Your task to perform on an android device: add a contact Image 0: 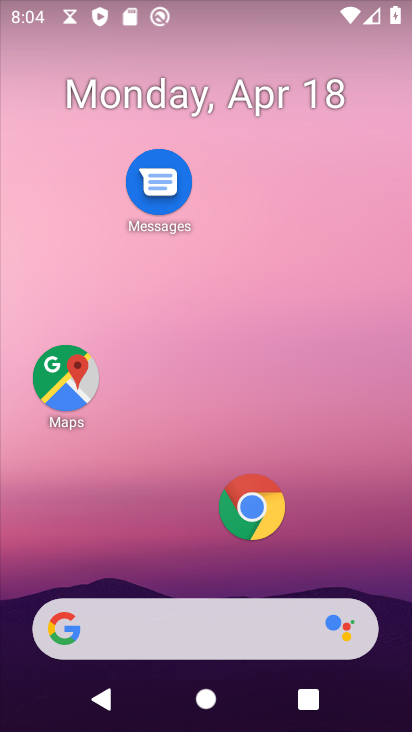
Step 0: drag from (155, 598) to (194, 287)
Your task to perform on an android device: add a contact Image 1: 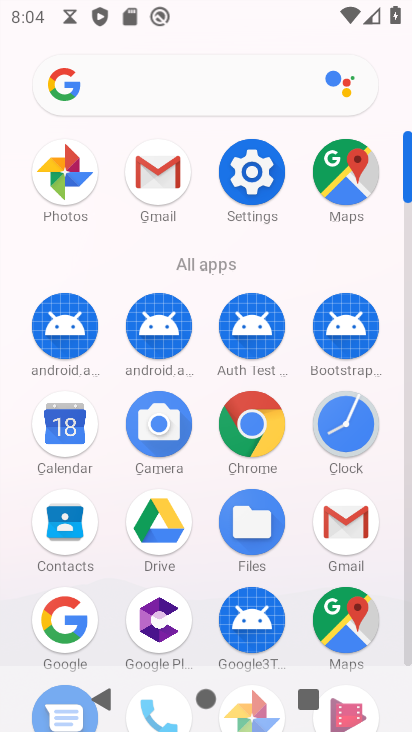
Step 1: click (67, 534)
Your task to perform on an android device: add a contact Image 2: 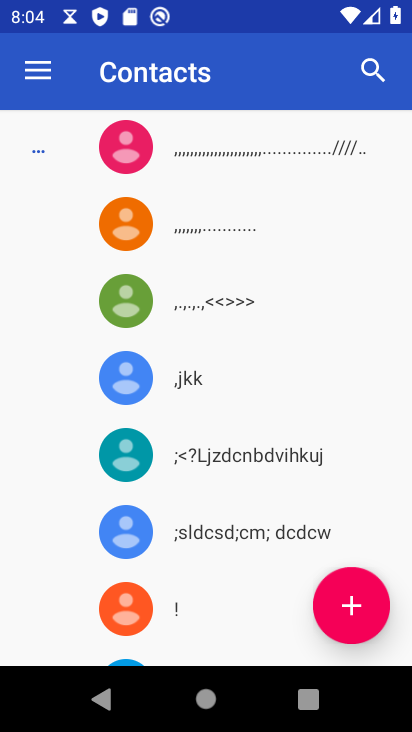
Step 2: click (364, 602)
Your task to perform on an android device: add a contact Image 3: 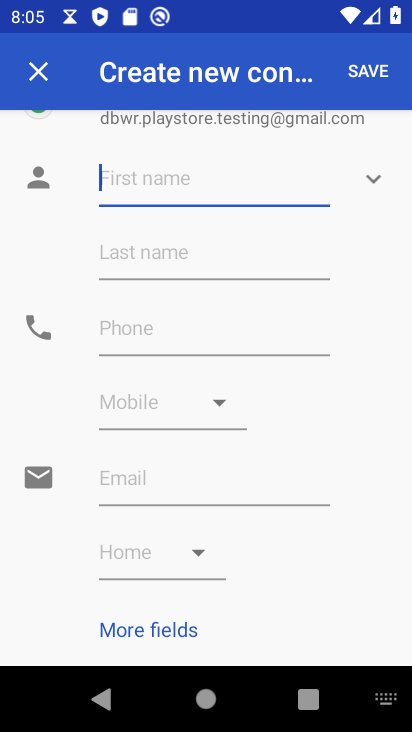
Step 3: type "nirma"
Your task to perform on an android device: add a contact Image 4: 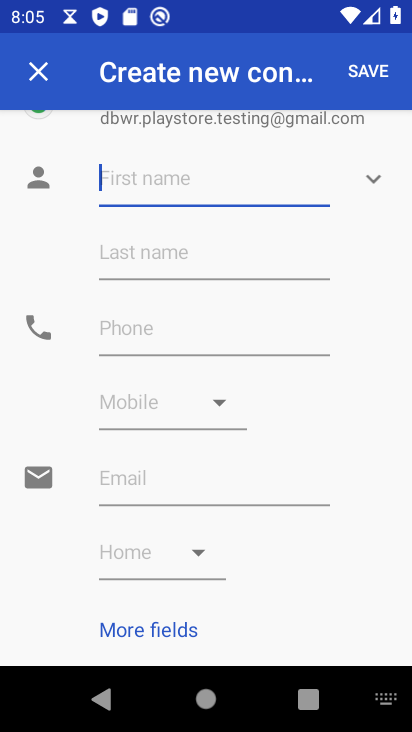
Step 4: click (142, 261)
Your task to perform on an android device: add a contact Image 5: 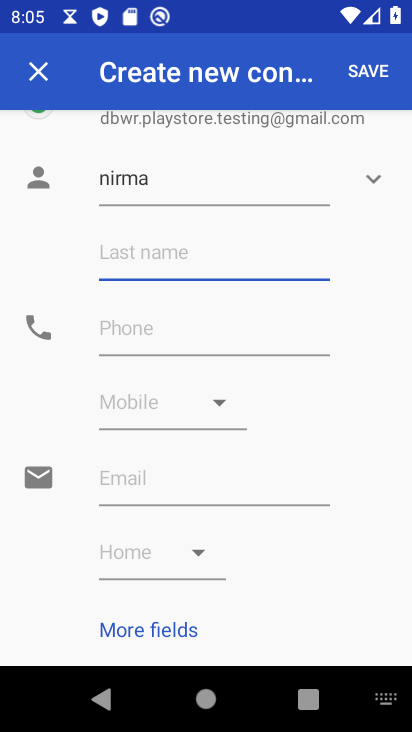
Step 5: type "powder"
Your task to perform on an android device: add a contact Image 6: 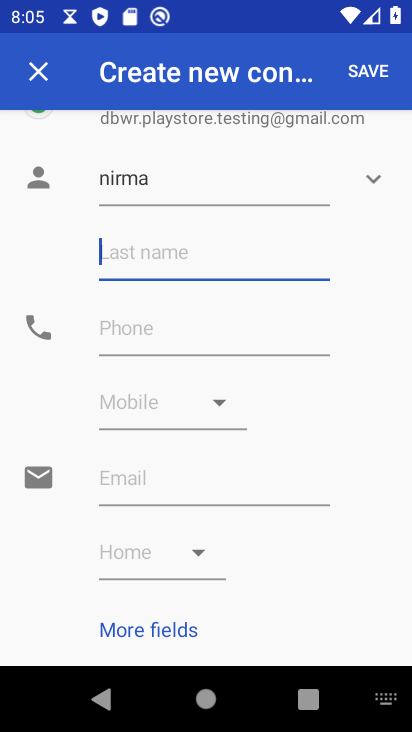
Step 6: click (108, 340)
Your task to perform on an android device: add a contact Image 7: 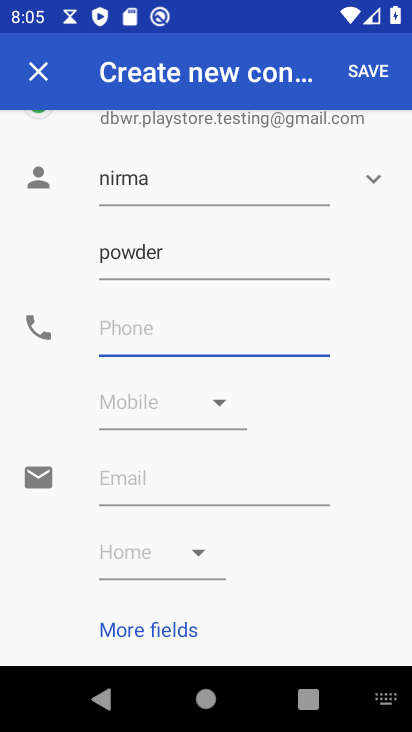
Step 7: type "7675896754"
Your task to perform on an android device: add a contact Image 8: 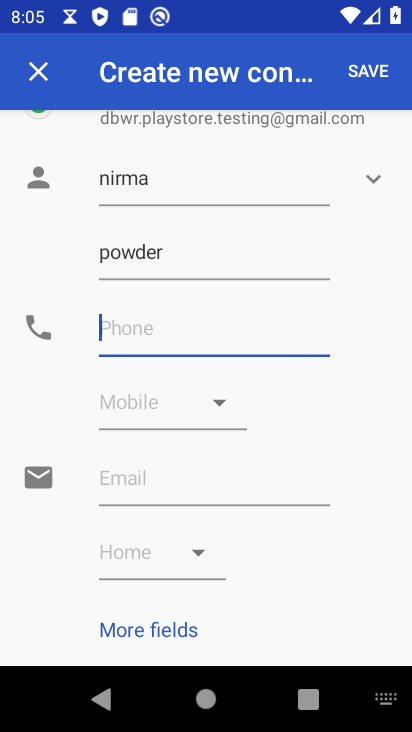
Step 8: click (172, 495)
Your task to perform on an android device: add a contact Image 9: 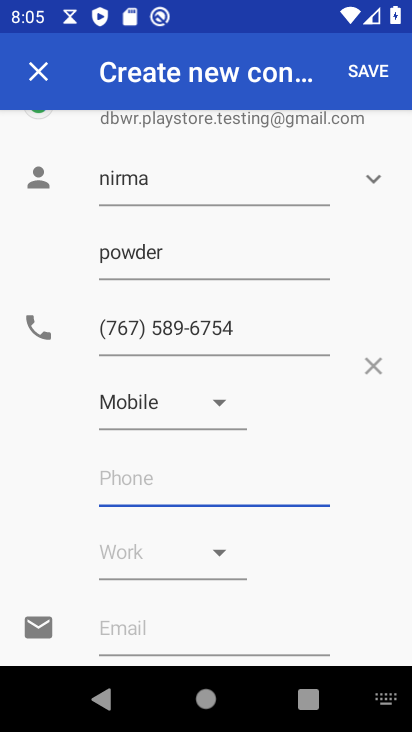
Step 9: click (355, 68)
Your task to perform on an android device: add a contact Image 10: 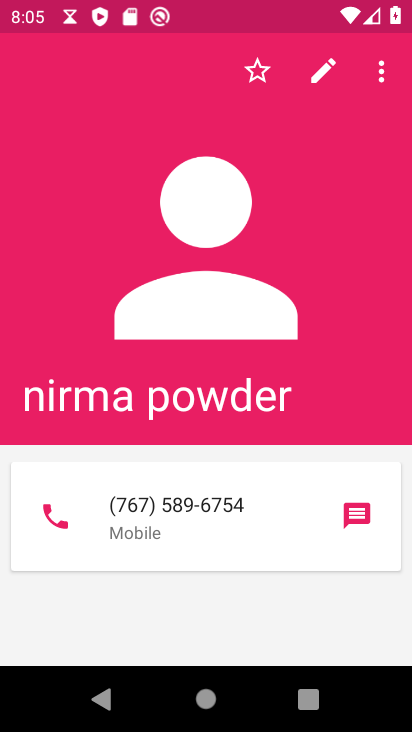
Step 10: task complete